Your task to perform on an android device: allow cookies in the chrome app Image 0: 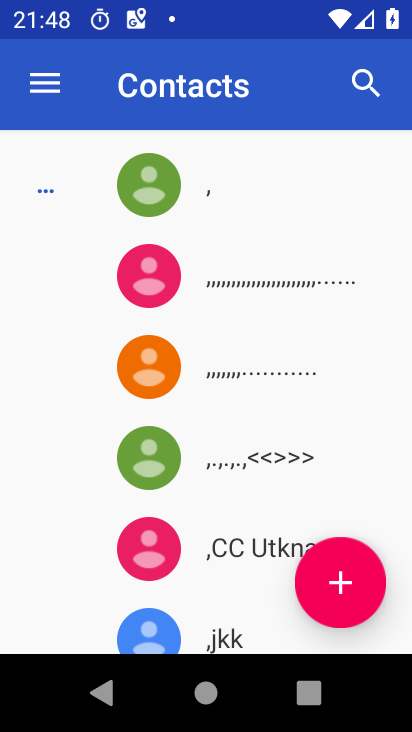
Step 0: press home button
Your task to perform on an android device: allow cookies in the chrome app Image 1: 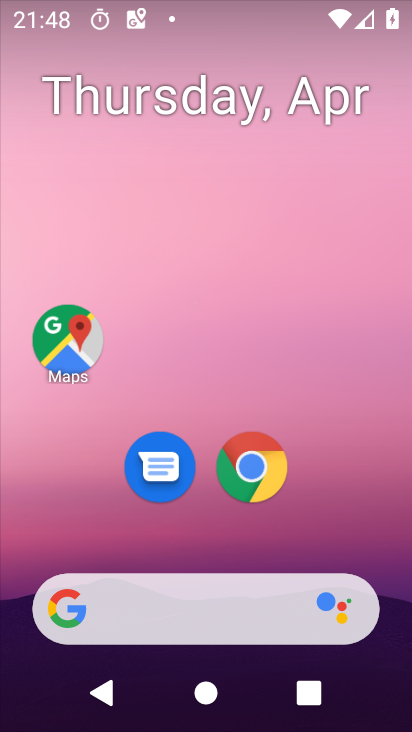
Step 1: drag from (214, 557) to (262, 643)
Your task to perform on an android device: allow cookies in the chrome app Image 2: 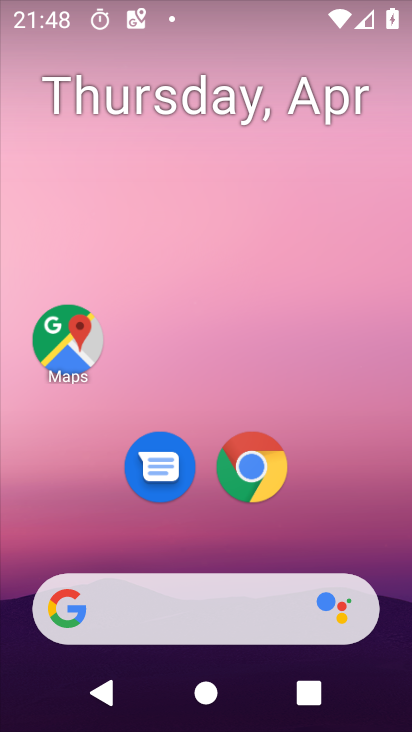
Step 2: click (252, 450)
Your task to perform on an android device: allow cookies in the chrome app Image 3: 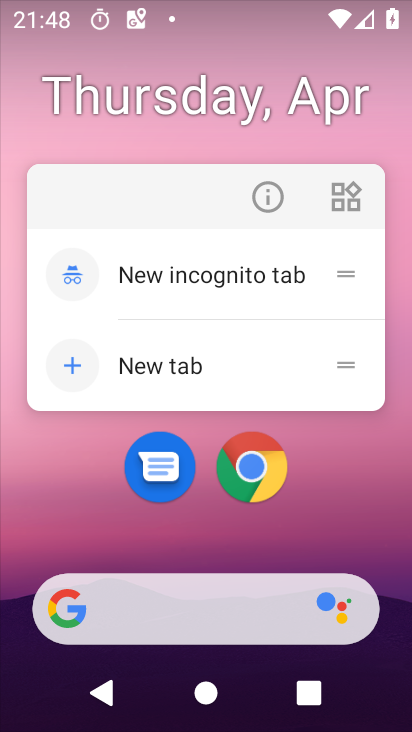
Step 3: click (250, 473)
Your task to perform on an android device: allow cookies in the chrome app Image 4: 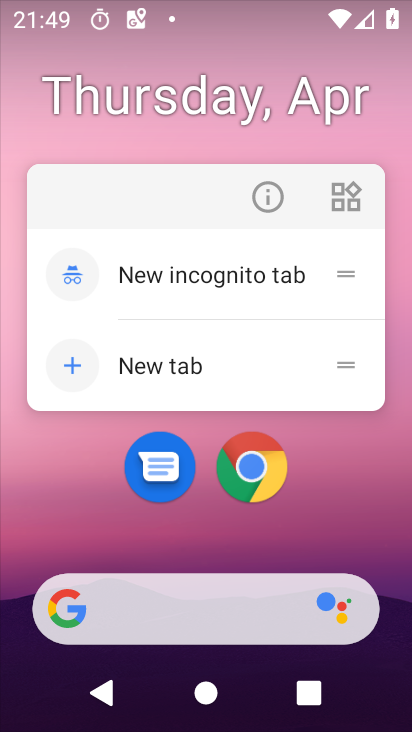
Step 4: click (269, 476)
Your task to perform on an android device: allow cookies in the chrome app Image 5: 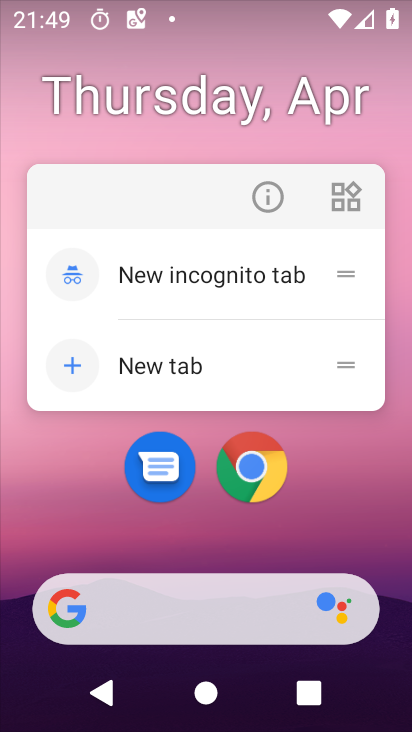
Step 5: click (246, 466)
Your task to perform on an android device: allow cookies in the chrome app Image 6: 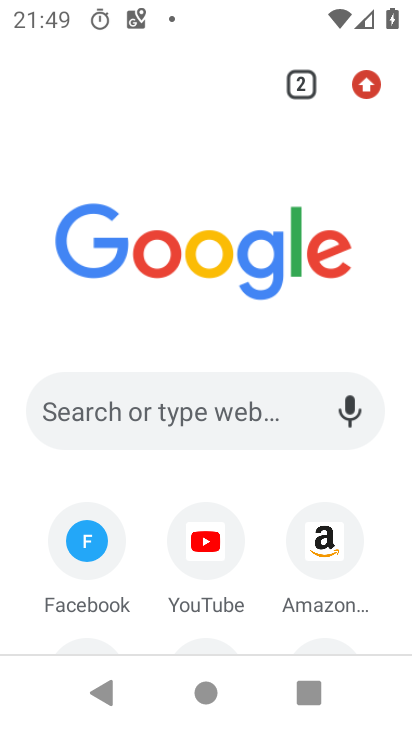
Step 6: drag from (369, 77) to (114, 521)
Your task to perform on an android device: allow cookies in the chrome app Image 7: 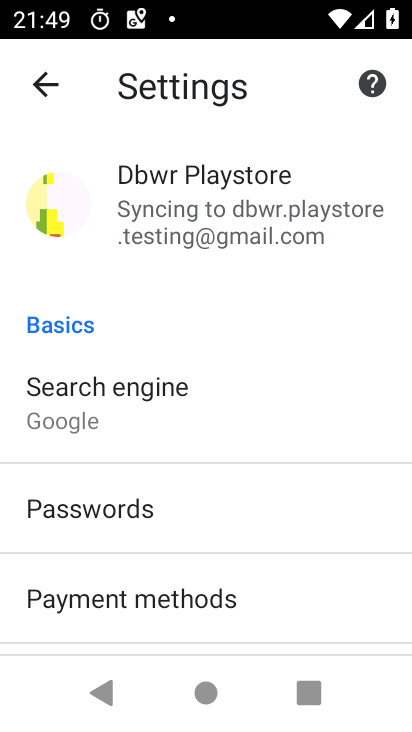
Step 7: drag from (149, 537) to (175, 0)
Your task to perform on an android device: allow cookies in the chrome app Image 8: 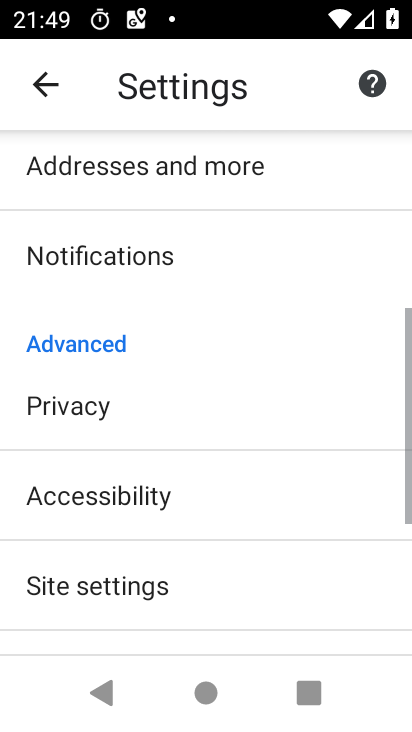
Step 8: click (98, 589)
Your task to perform on an android device: allow cookies in the chrome app Image 9: 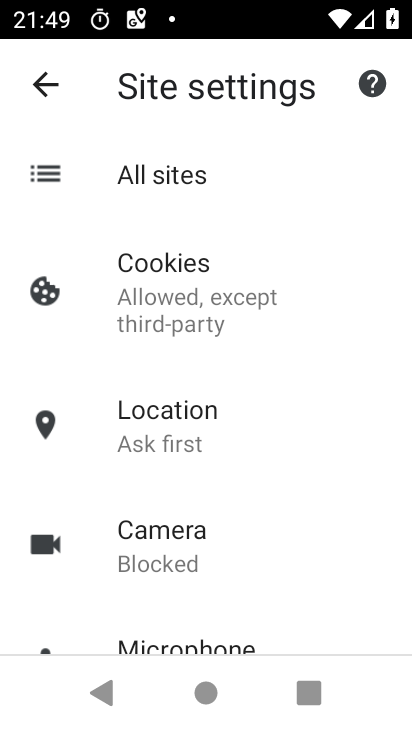
Step 9: click (176, 318)
Your task to perform on an android device: allow cookies in the chrome app Image 10: 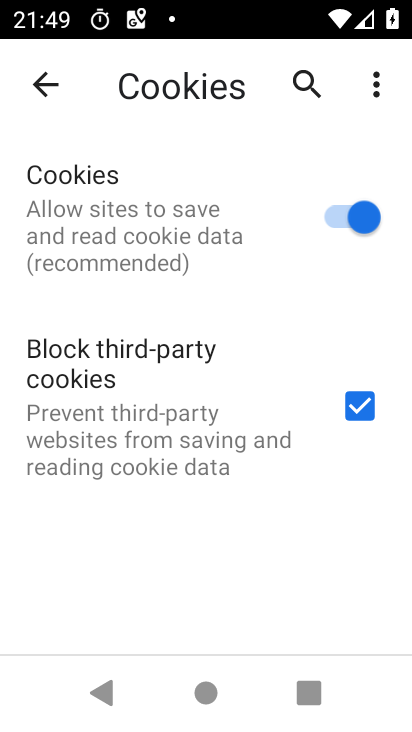
Step 10: task complete